Your task to perform on an android device: star an email in the gmail app Image 0: 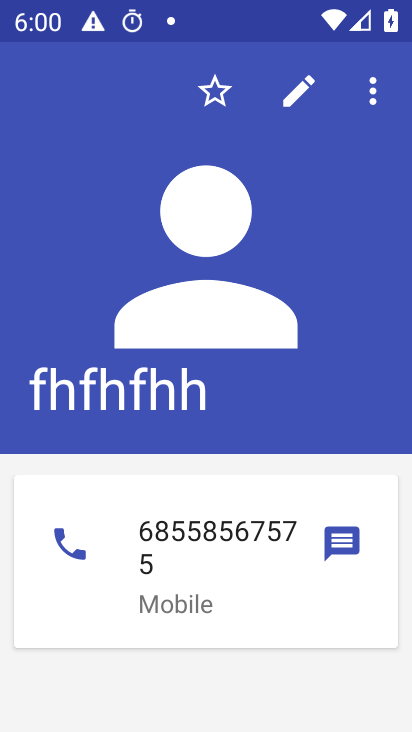
Step 0: press home button
Your task to perform on an android device: star an email in the gmail app Image 1: 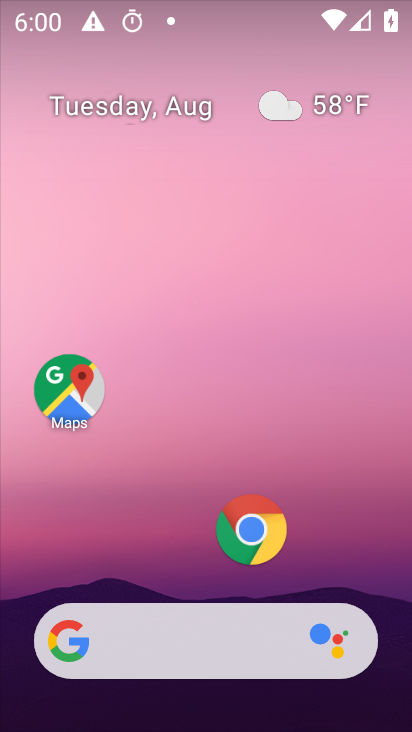
Step 1: drag from (158, 553) to (169, 270)
Your task to perform on an android device: star an email in the gmail app Image 2: 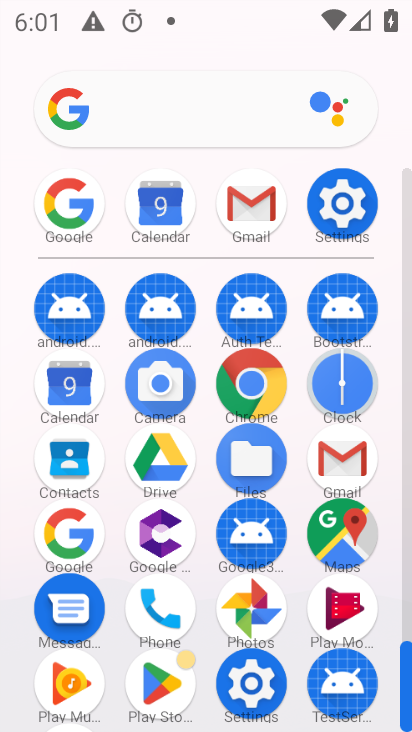
Step 2: click (244, 224)
Your task to perform on an android device: star an email in the gmail app Image 3: 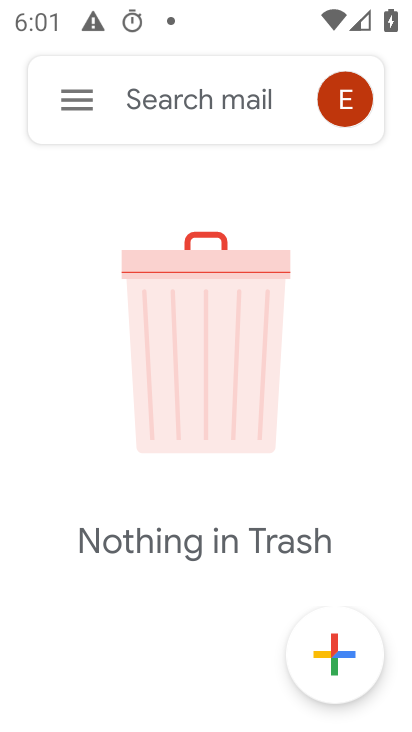
Step 3: click (52, 99)
Your task to perform on an android device: star an email in the gmail app Image 4: 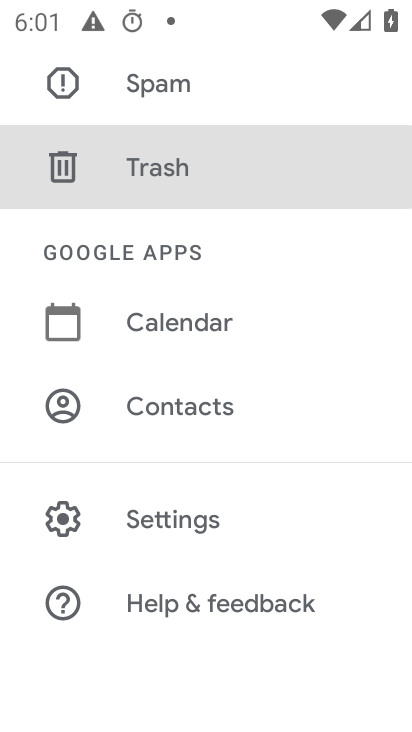
Step 4: drag from (203, 231) to (181, 590)
Your task to perform on an android device: star an email in the gmail app Image 5: 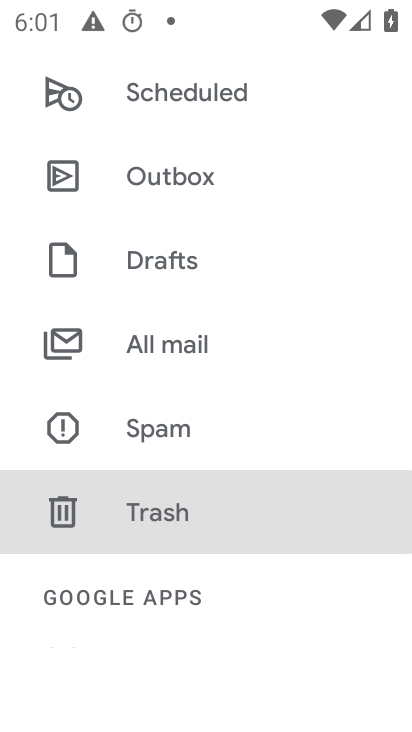
Step 5: click (181, 348)
Your task to perform on an android device: star an email in the gmail app Image 6: 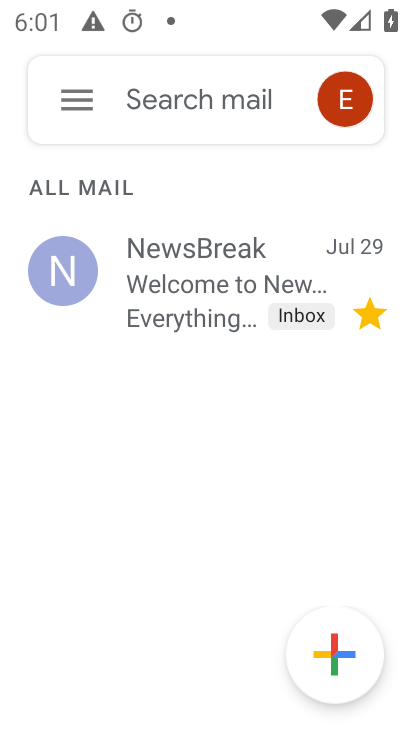
Step 6: task complete